Your task to perform on an android device: Open wifi settings Image 0: 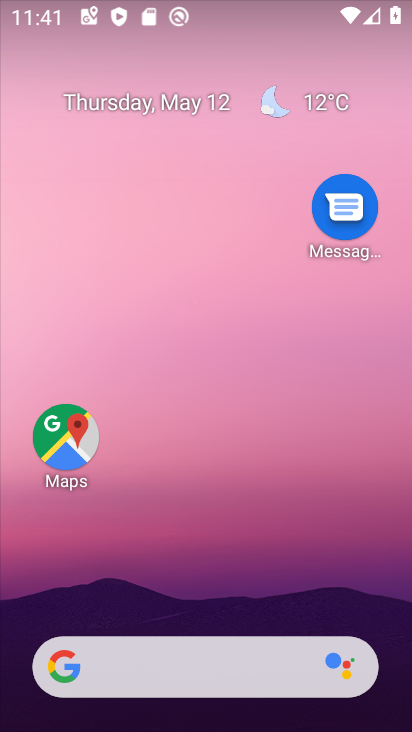
Step 0: drag from (355, 552) to (364, 294)
Your task to perform on an android device: Open wifi settings Image 1: 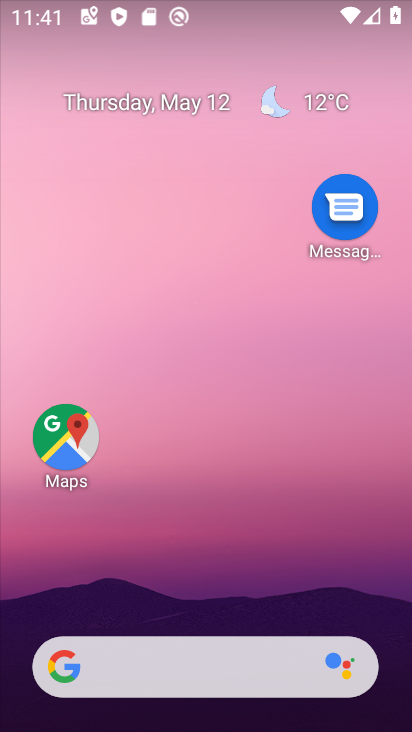
Step 1: drag from (348, 0) to (245, 677)
Your task to perform on an android device: Open wifi settings Image 2: 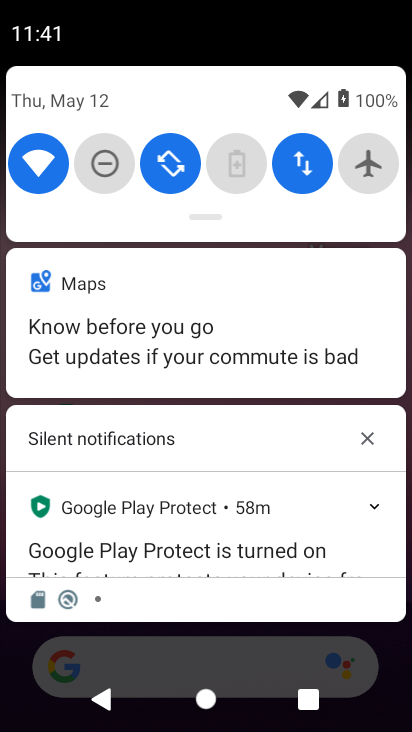
Step 2: click (45, 170)
Your task to perform on an android device: Open wifi settings Image 3: 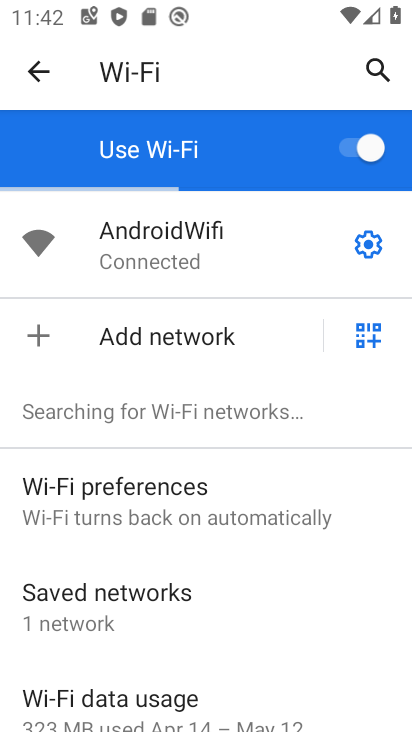
Step 3: task complete